Your task to perform on an android device: Empty the shopping cart on bestbuy.com. Search for apple airpods pro on bestbuy.com, select the first entry, and add it to the cart. Image 0: 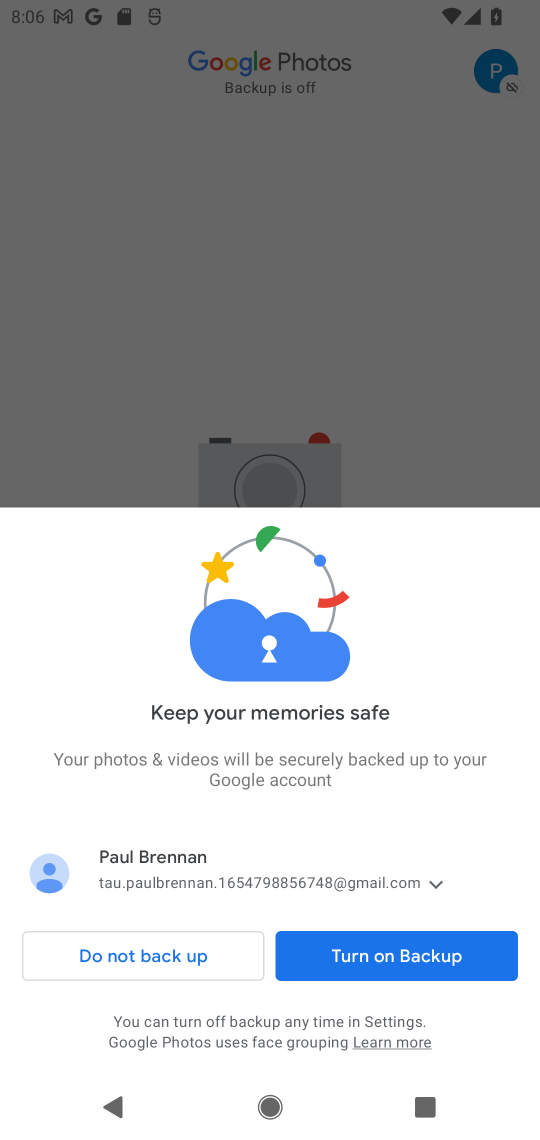
Step 0: press home button
Your task to perform on an android device: Empty the shopping cart on bestbuy.com. Search for apple airpods pro on bestbuy.com, select the first entry, and add it to the cart. Image 1: 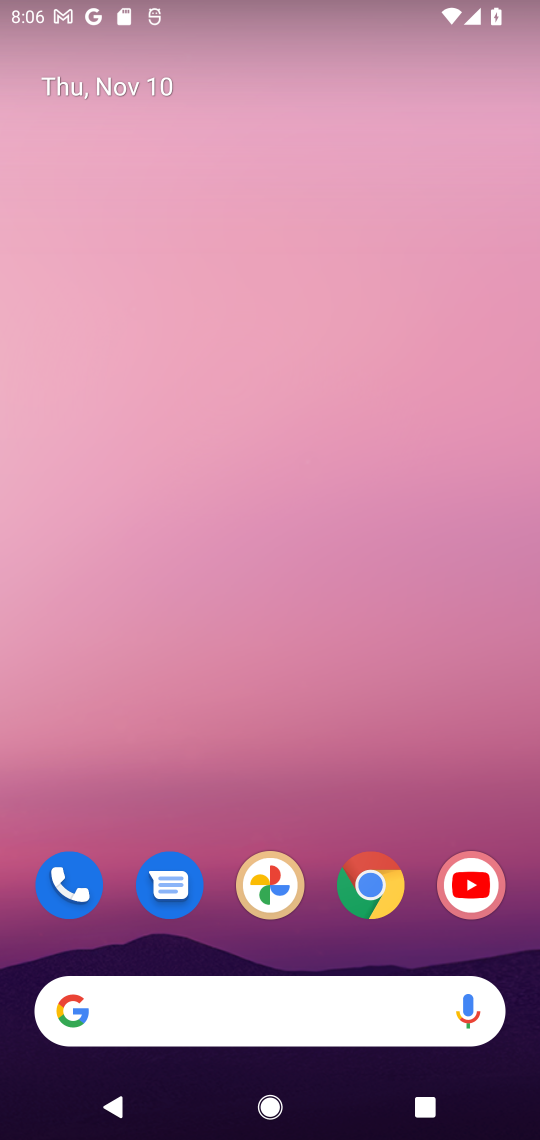
Step 1: click (376, 894)
Your task to perform on an android device: Empty the shopping cart on bestbuy.com. Search for apple airpods pro on bestbuy.com, select the first entry, and add it to the cart. Image 2: 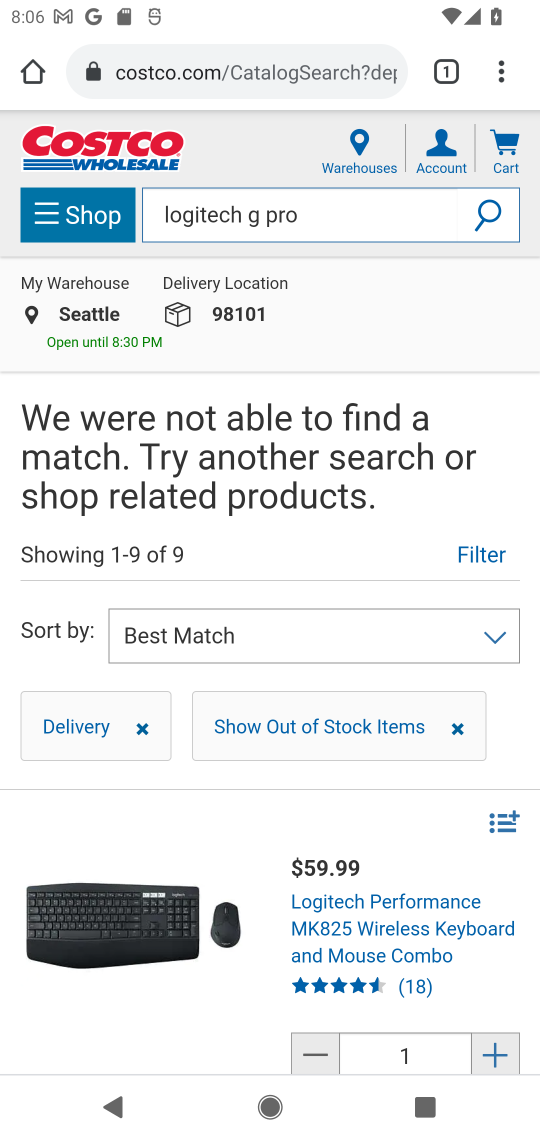
Step 2: click (273, 74)
Your task to perform on an android device: Empty the shopping cart on bestbuy.com. Search for apple airpods pro on bestbuy.com, select the first entry, and add it to the cart. Image 3: 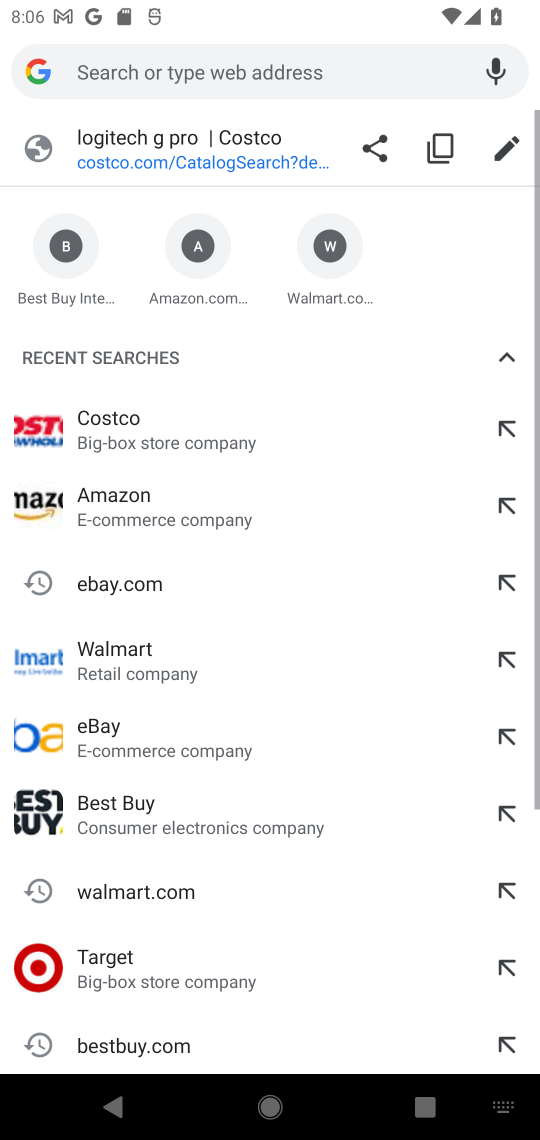
Step 3: type "bestbuy.com"
Your task to perform on an android device: Empty the shopping cart on bestbuy.com. Search for apple airpods pro on bestbuy.com, select the first entry, and add it to the cart. Image 4: 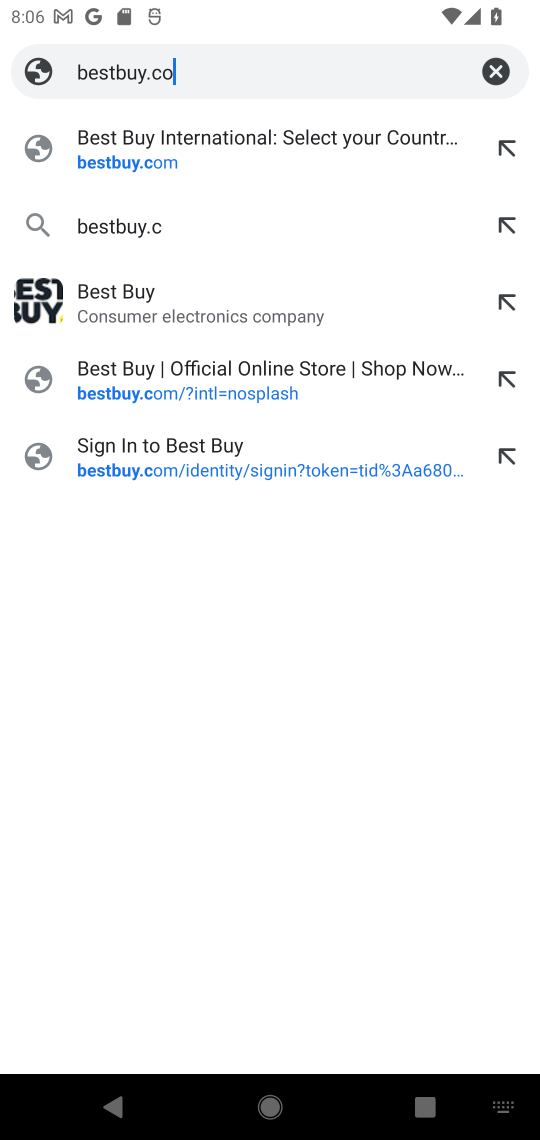
Step 4: press enter
Your task to perform on an android device: Empty the shopping cart on bestbuy.com. Search for apple airpods pro on bestbuy.com, select the first entry, and add it to the cart. Image 5: 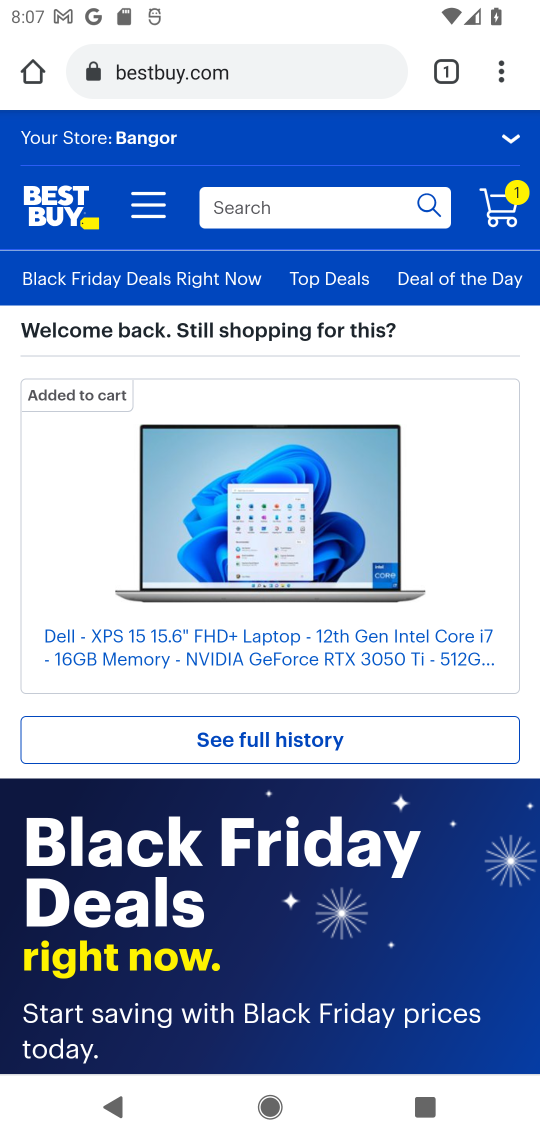
Step 5: click (505, 217)
Your task to perform on an android device: Empty the shopping cart on bestbuy.com. Search for apple airpods pro on bestbuy.com, select the first entry, and add it to the cart. Image 6: 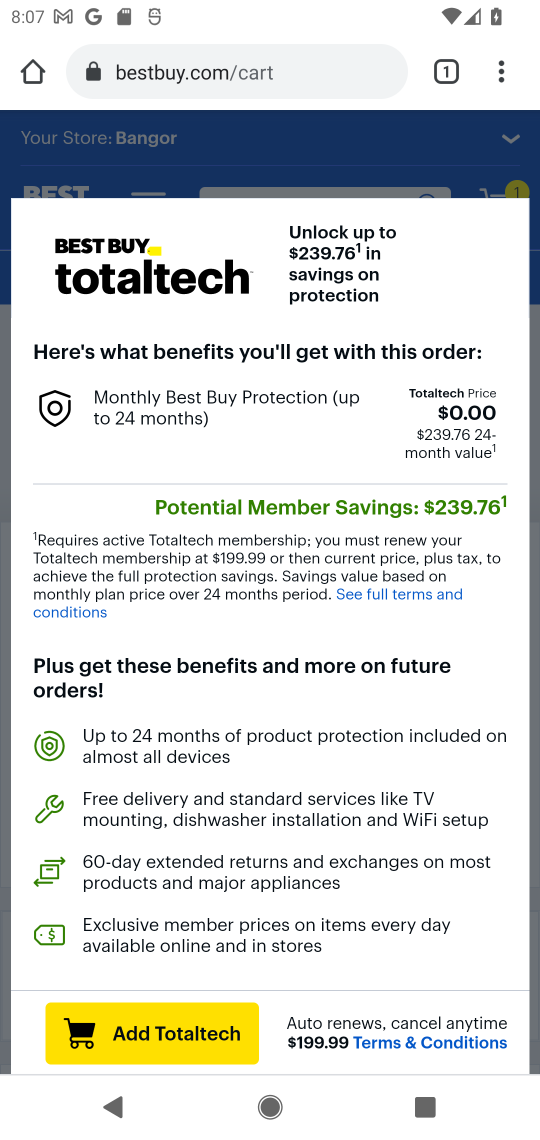
Step 6: drag from (432, 660) to (392, 329)
Your task to perform on an android device: Empty the shopping cart on bestbuy.com. Search for apple airpods pro on bestbuy.com, select the first entry, and add it to the cart. Image 7: 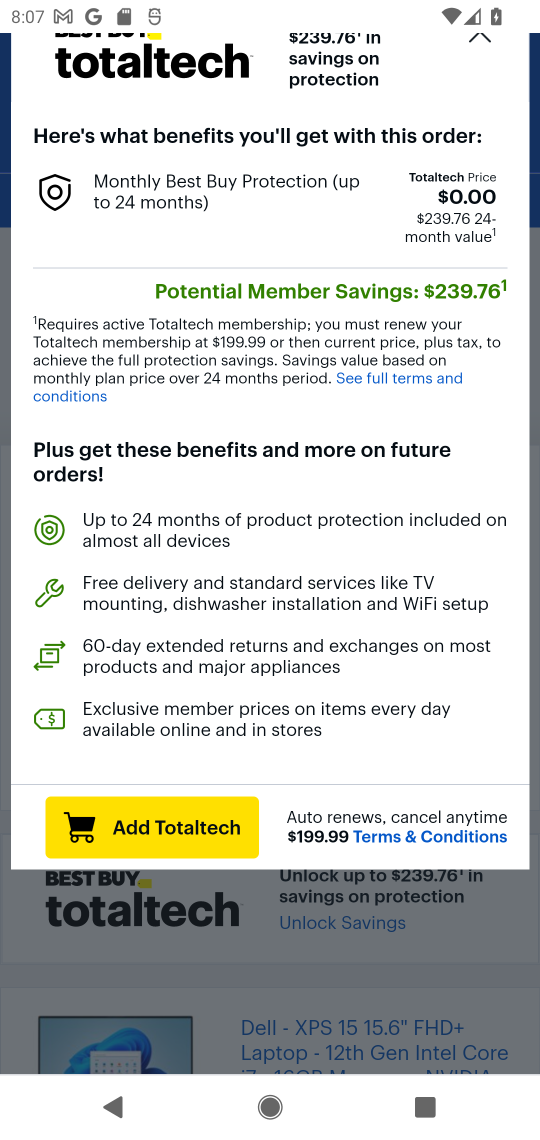
Step 7: drag from (329, 209) to (332, 685)
Your task to perform on an android device: Empty the shopping cart on bestbuy.com. Search for apple airpods pro on bestbuy.com, select the first entry, and add it to the cart. Image 8: 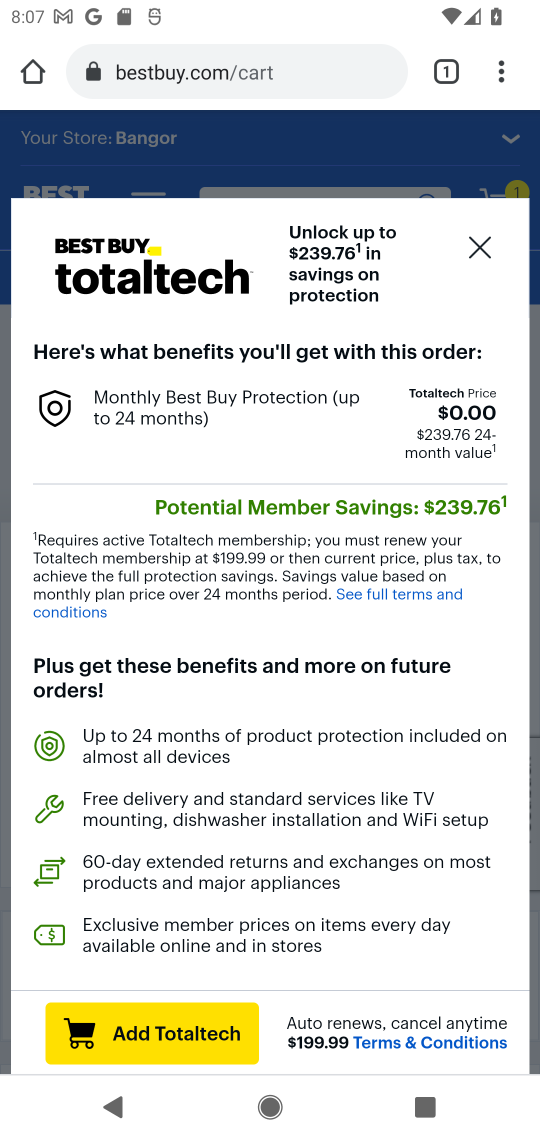
Step 8: click (482, 239)
Your task to perform on an android device: Empty the shopping cart on bestbuy.com. Search for apple airpods pro on bestbuy.com, select the first entry, and add it to the cart. Image 9: 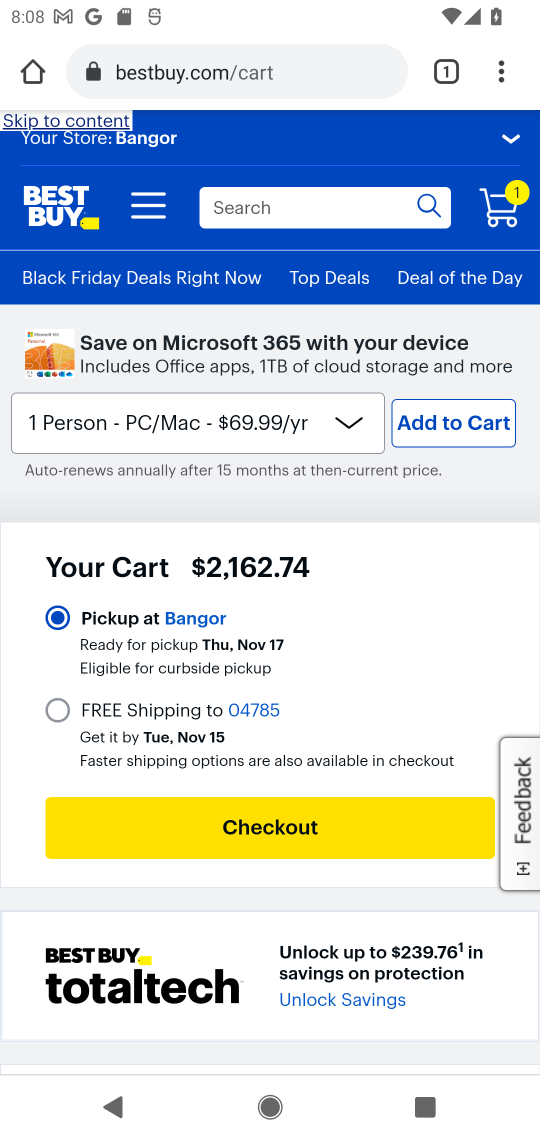
Step 9: drag from (450, 618) to (401, 1057)
Your task to perform on an android device: Empty the shopping cart on bestbuy.com. Search for apple airpods pro on bestbuy.com, select the first entry, and add it to the cart. Image 10: 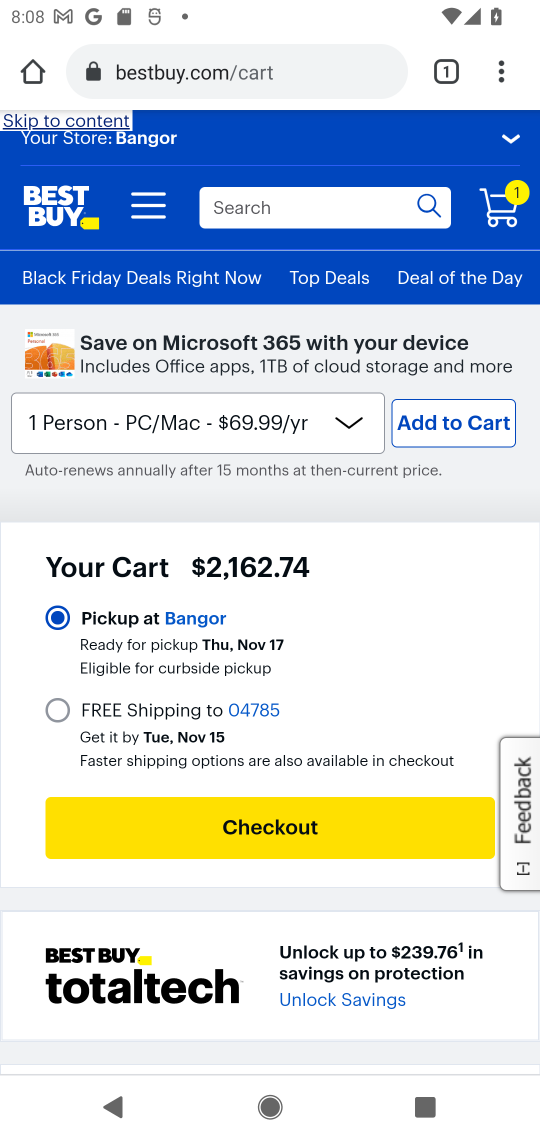
Step 10: drag from (387, 696) to (398, 365)
Your task to perform on an android device: Empty the shopping cart on bestbuy.com. Search for apple airpods pro on bestbuy.com, select the first entry, and add it to the cart. Image 11: 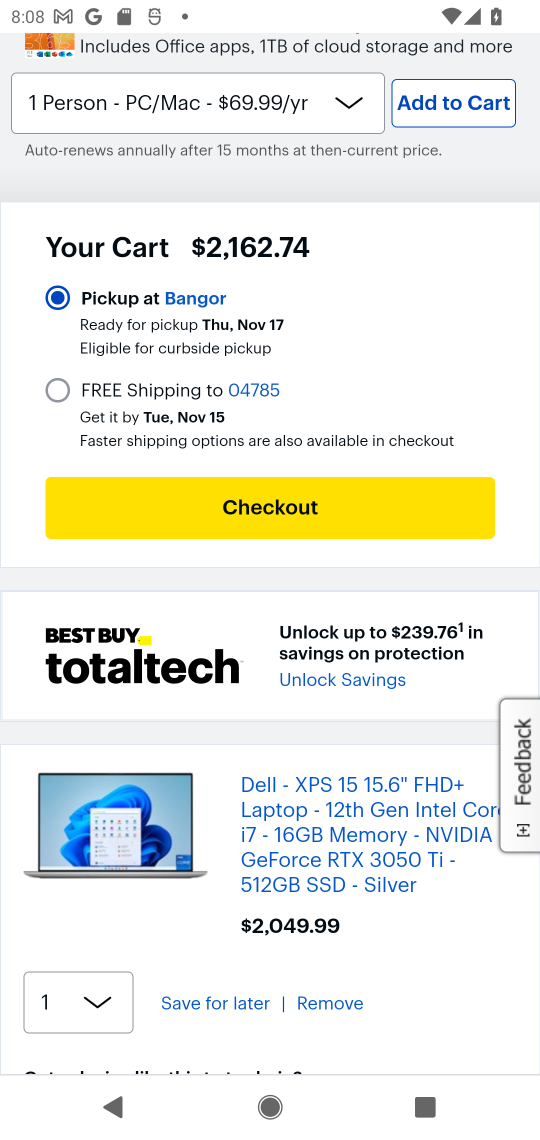
Step 11: click (337, 1004)
Your task to perform on an android device: Empty the shopping cart on bestbuy.com. Search for apple airpods pro on bestbuy.com, select the first entry, and add it to the cart. Image 12: 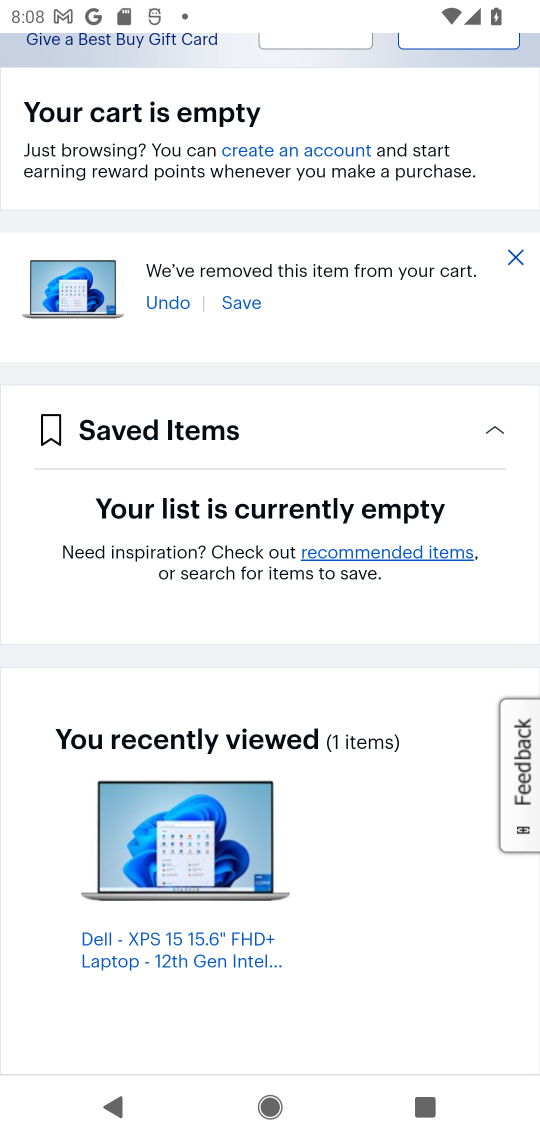
Step 12: click (512, 253)
Your task to perform on an android device: Empty the shopping cart on bestbuy.com. Search for apple airpods pro on bestbuy.com, select the first entry, and add it to the cart. Image 13: 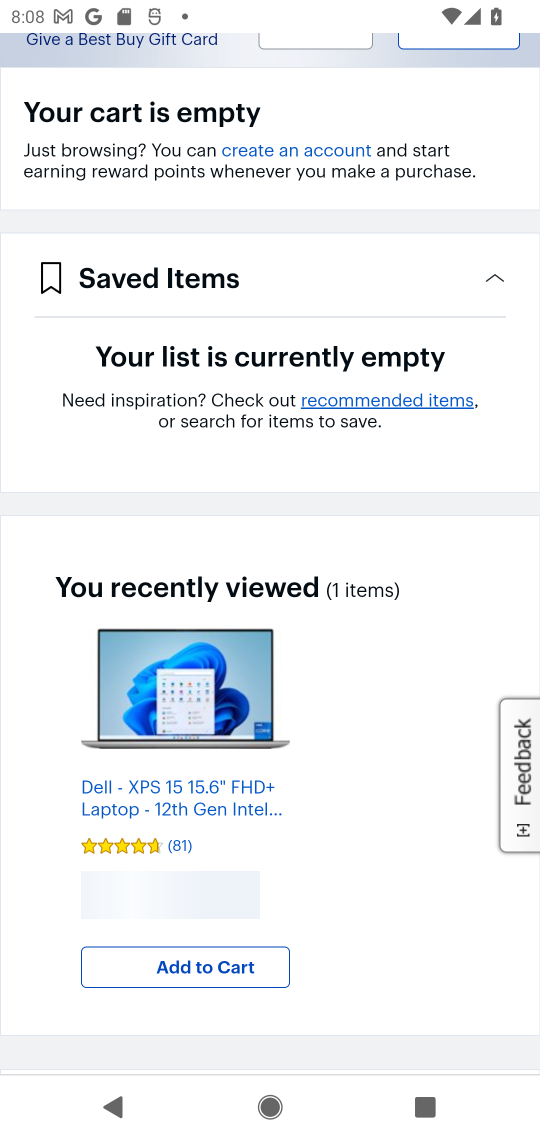
Step 13: drag from (432, 232) to (484, 733)
Your task to perform on an android device: Empty the shopping cart on bestbuy.com. Search for apple airpods pro on bestbuy.com, select the first entry, and add it to the cart. Image 14: 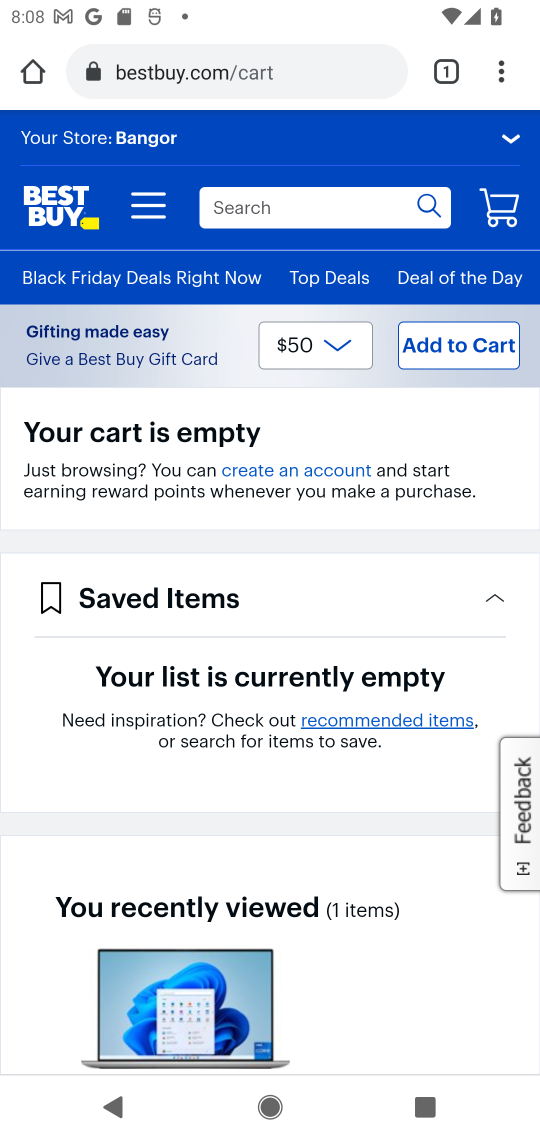
Step 14: click (312, 202)
Your task to perform on an android device: Empty the shopping cart on bestbuy.com. Search for apple airpods pro on bestbuy.com, select the first entry, and add it to the cart. Image 15: 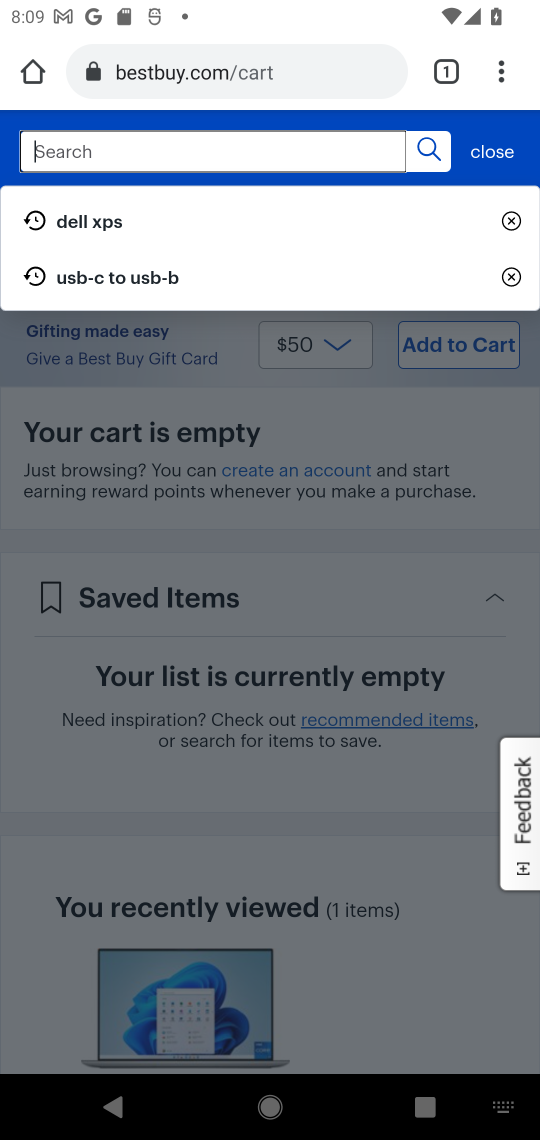
Step 15: type "apple airpods pro"
Your task to perform on an android device: Empty the shopping cart on bestbuy.com. Search for apple airpods pro on bestbuy.com, select the first entry, and add it to the cart. Image 16: 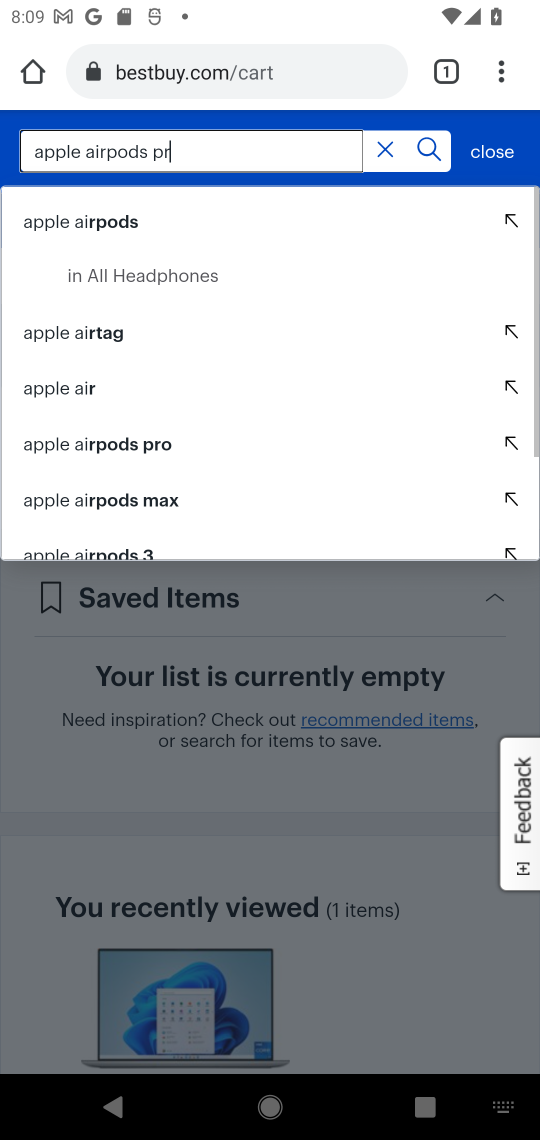
Step 16: press enter
Your task to perform on an android device: Empty the shopping cart on bestbuy.com. Search for apple airpods pro on bestbuy.com, select the first entry, and add it to the cart. Image 17: 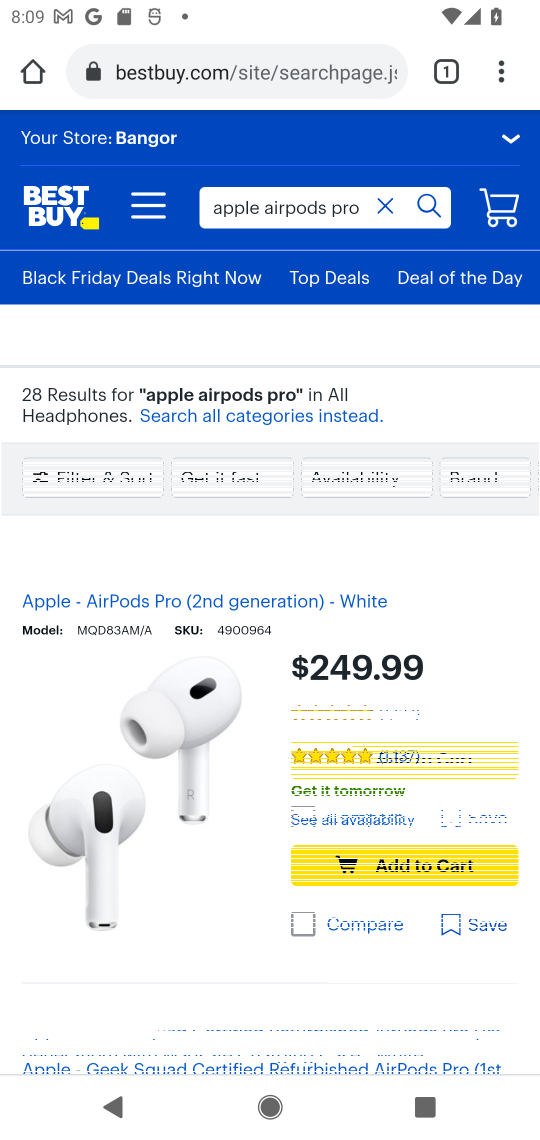
Step 17: click (153, 782)
Your task to perform on an android device: Empty the shopping cart on bestbuy.com. Search for apple airpods pro on bestbuy.com, select the first entry, and add it to the cart. Image 18: 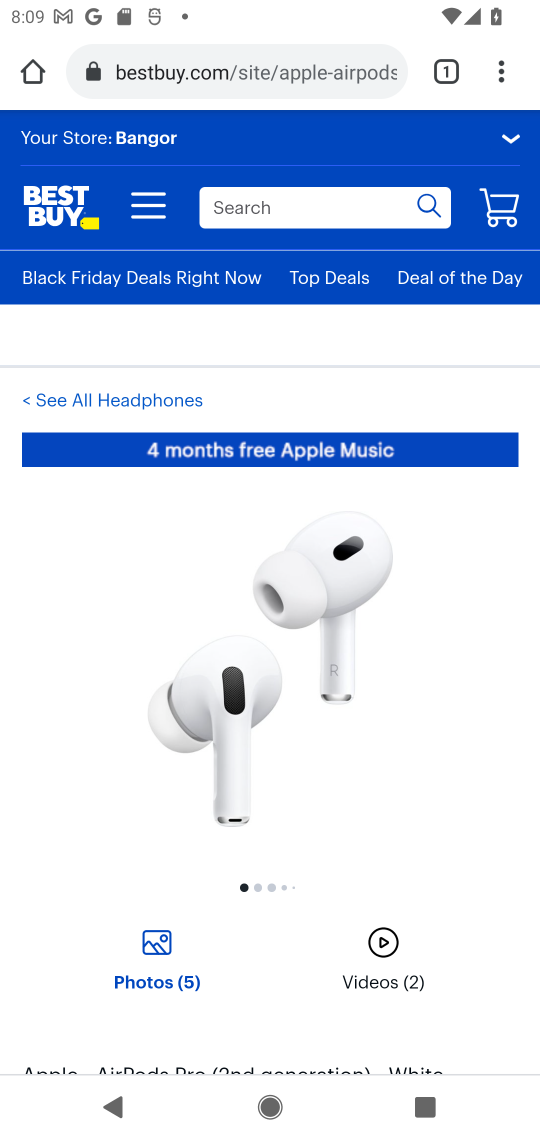
Step 18: drag from (396, 791) to (383, 328)
Your task to perform on an android device: Empty the shopping cart on bestbuy.com. Search for apple airpods pro on bestbuy.com, select the first entry, and add it to the cart. Image 19: 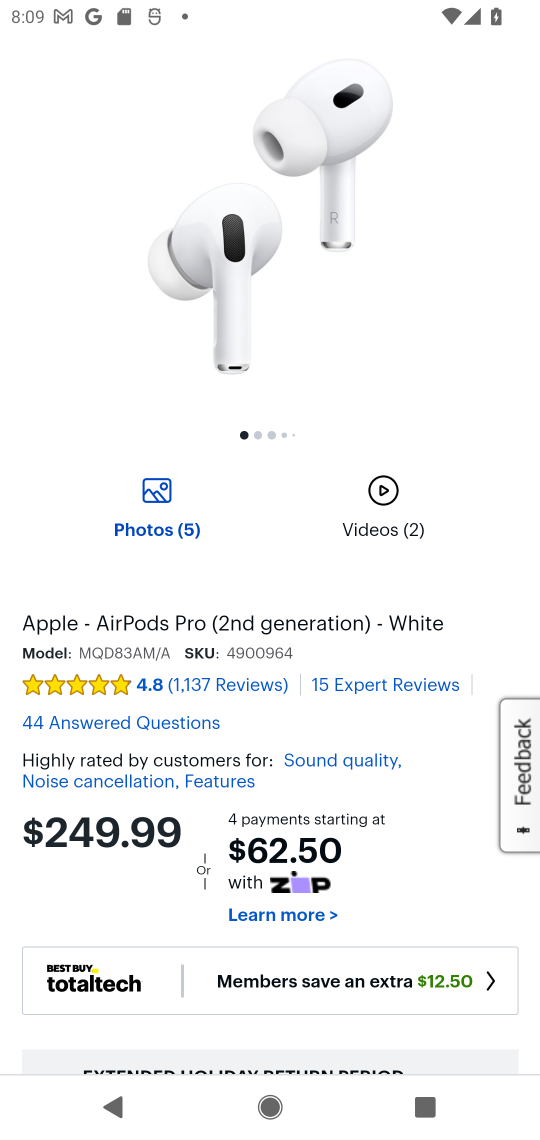
Step 19: drag from (466, 866) to (458, 366)
Your task to perform on an android device: Empty the shopping cart on bestbuy.com. Search for apple airpods pro on bestbuy.com, select the first entry, and add it to the cart. Image 20: 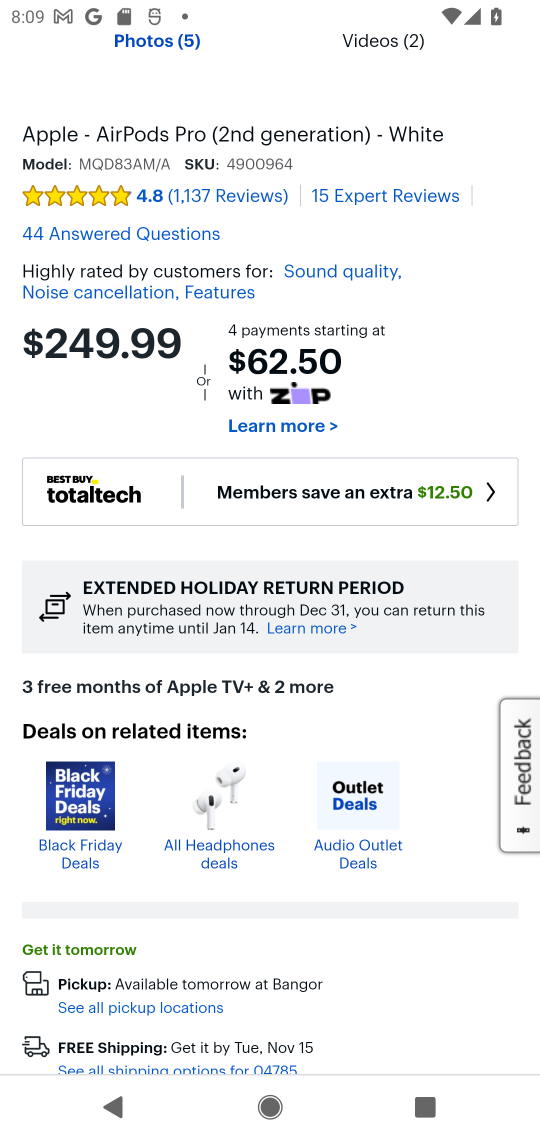
Step 20: drag from (432, 941) to (441, 427)
Your task to perform on an android device: Empty the shopping cart on bestbuy.com. Search for apple airpods pro on bestbuy.com, select the first entry, and add it to the cart. Image 21: 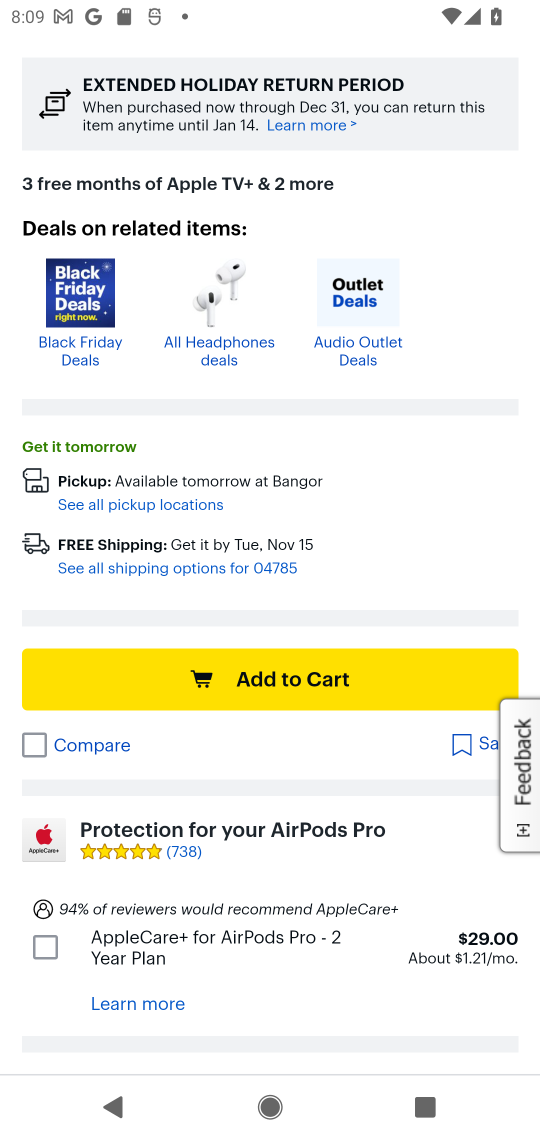
Step 21: click (313, 675)
Your task to perform on an android device: Empty the shopping cart on bestbuy.com. Search for apple airpods pro on bestbuy.com, select the first entry, and add it to the cart. Image 22: 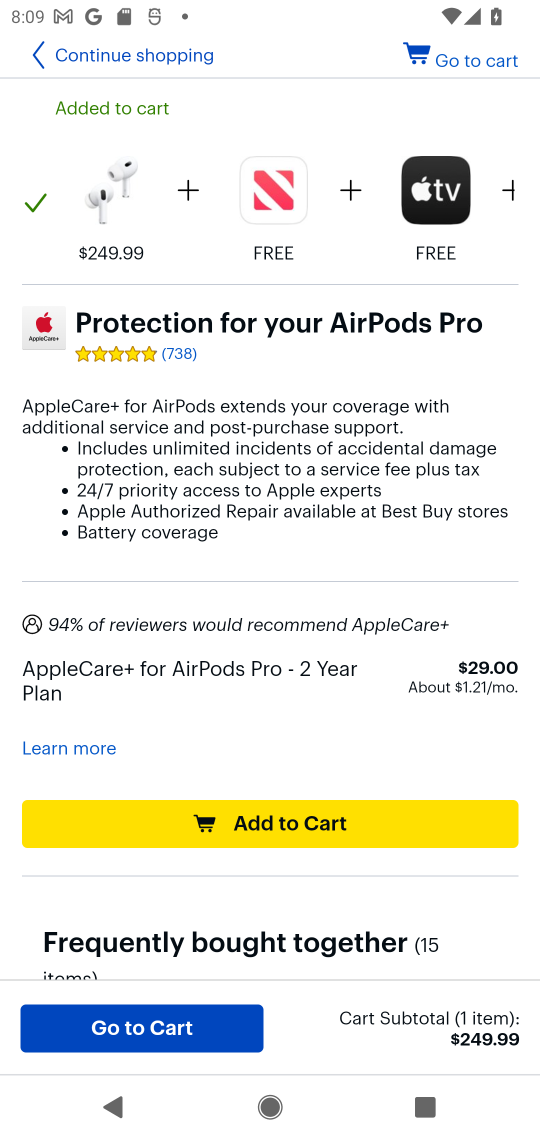
Step 22: task complete